Your task to perform on an android device: add a contact Image 0: 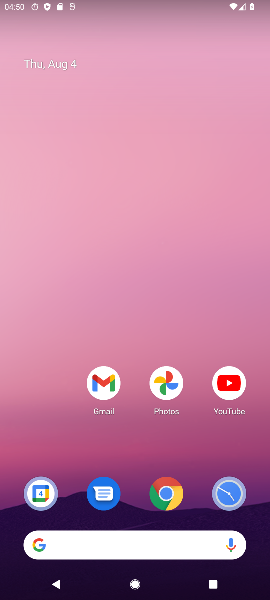
Step 0: drag from (24, 562) to (138, 182)
Your task to perform on an android device: add a contact Image 1: 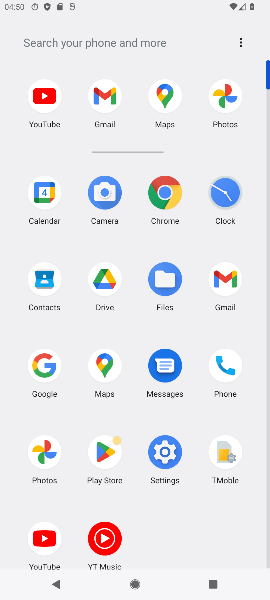
Step 1: click (43, 281)
Your task to perform on an android device: add a contact Image 2: 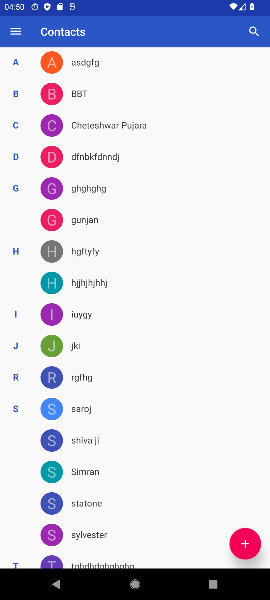
Step 2: click (247, 547)
Your task to perform on an android device: add a contact Image 3: 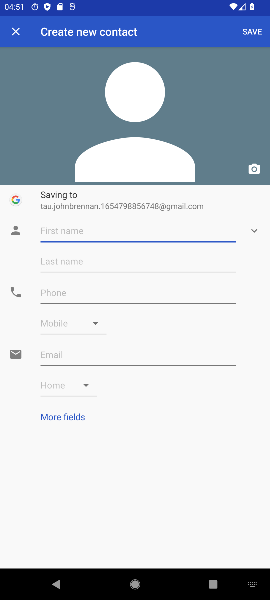
Step 3: type "erthfgv"
Your task to perform on an android device: add a contact Image 4: 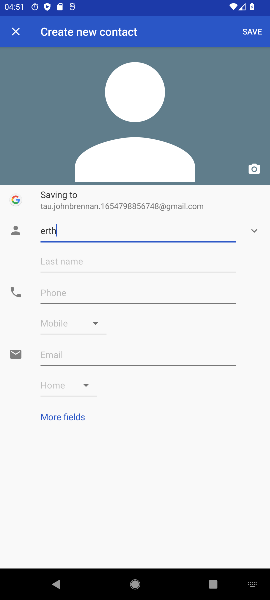
Step 4: type ""
Your task to perform on an android device: add a contact Image 5: 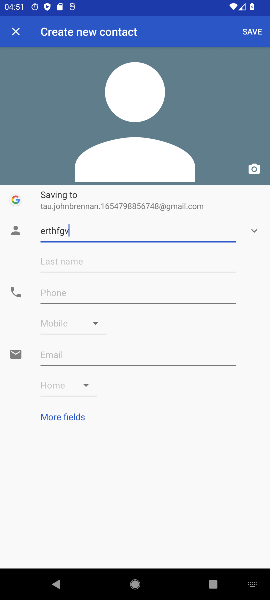
Step 5: click (249, 35)
Your task to perform on an android device: add a contact Image 6: 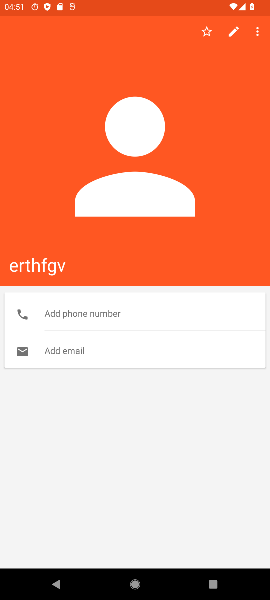
Step 6: task complete